Your task to perform on an android device: toggle javascript in the chrome app Image 0: 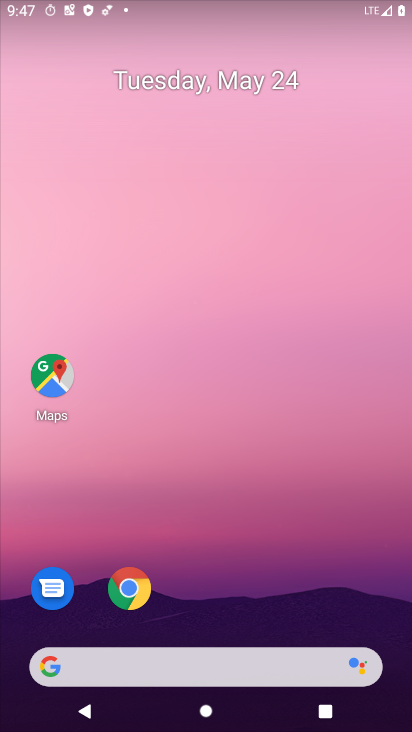
Step 0: click (133, 582)
Your task to perform on an android device: toggle javascript in the chrome app Image 1: 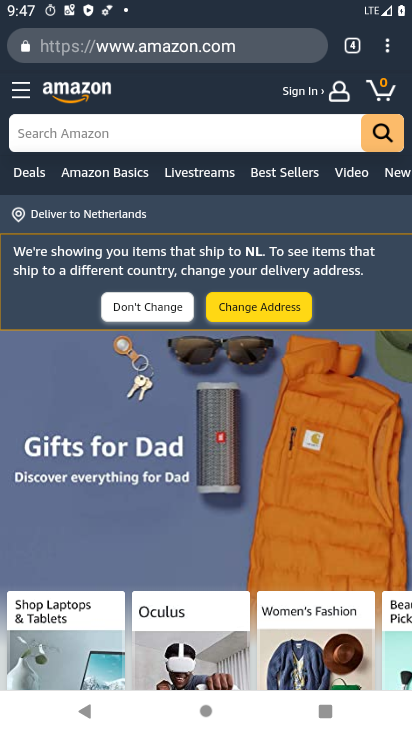
Step 1: drag from (385, 43) to (222, 554)
Your task to perform on an android device: toggle javascript in the chrome app Image 2: 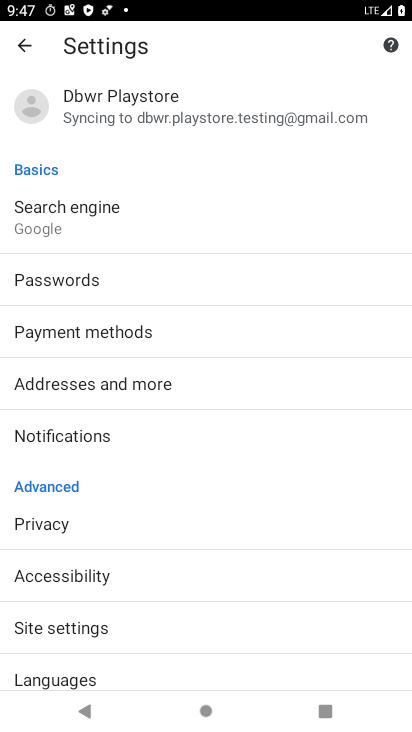
Step 2: click (114, 620)
Your task to perform on an android device: toggle javascript in the chrome app Image 3: 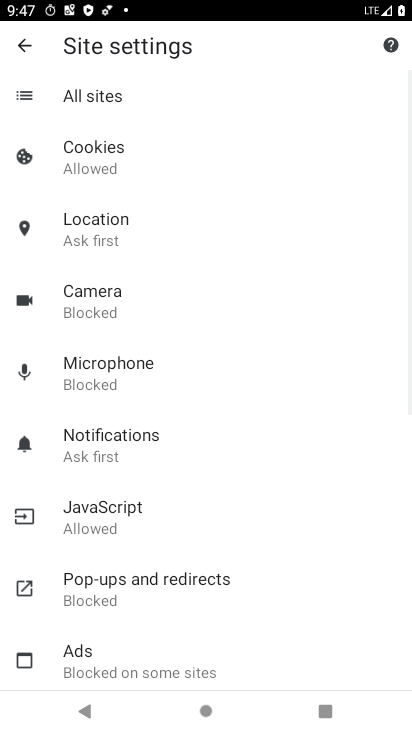
Step 3: click (92, 510)
Your task to perform on an android device: toggle javascript in the chrome app Image 4: 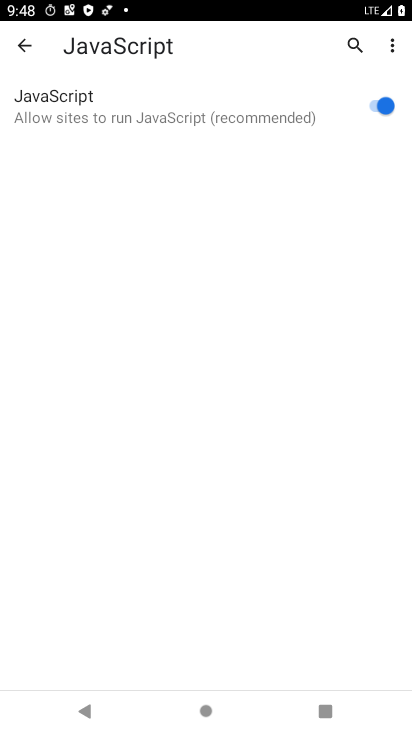
Step 4: click (388, 110)
Your task to perform on an android device: toggle javascript in the chrome app Image 5: 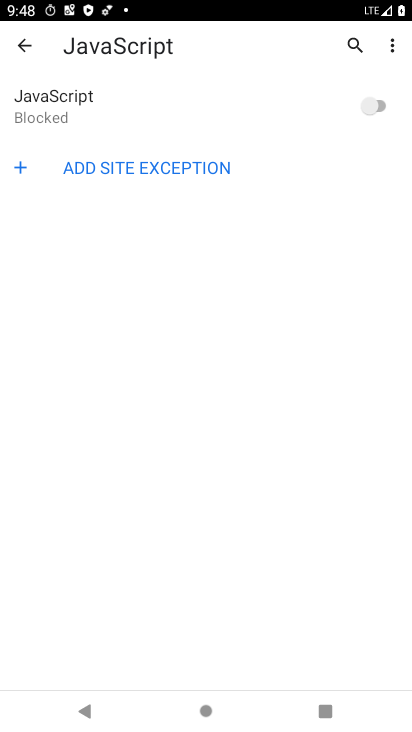
Step 5: task complete